Your task to perform on an android device: turn on wifi Image 0: 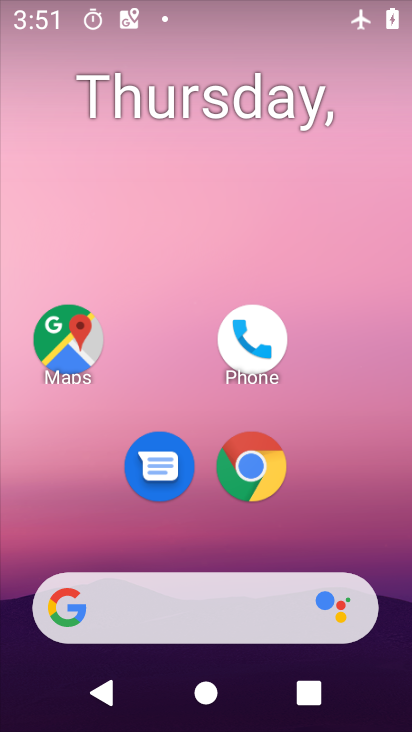
Step 0: drag from (200, 560) to (225, 106)
Your task to perform on an android device: turn on wifi Image 1: 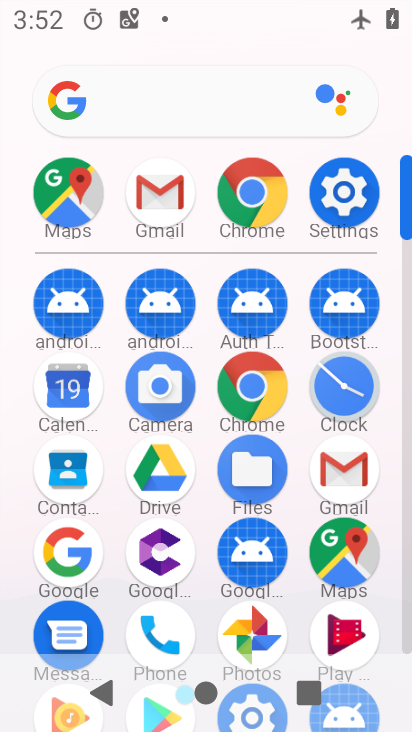
Step 1: click (353, 202)
Your task to perform on an android device: turn on wifi Image 2: 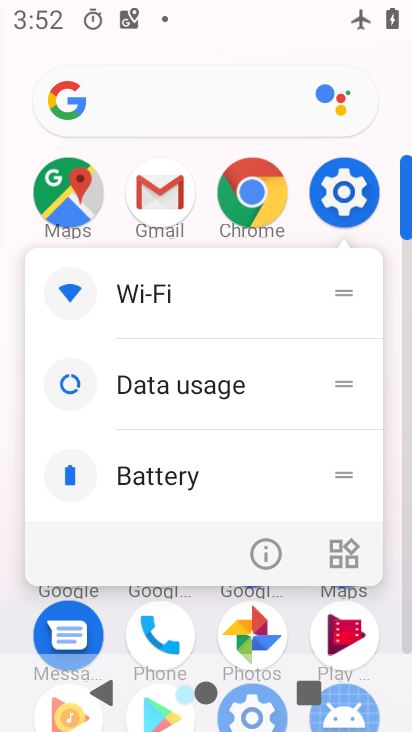
Step 2: click (186, 287)
Your task to perform on an android device: turn on wifi Image 3: 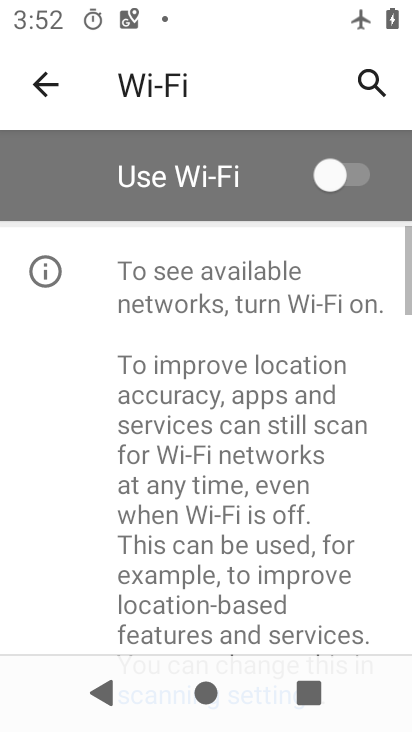
Step 3: click (338, 174)
Your task to perform on an android device: turn on wifi Image 4: 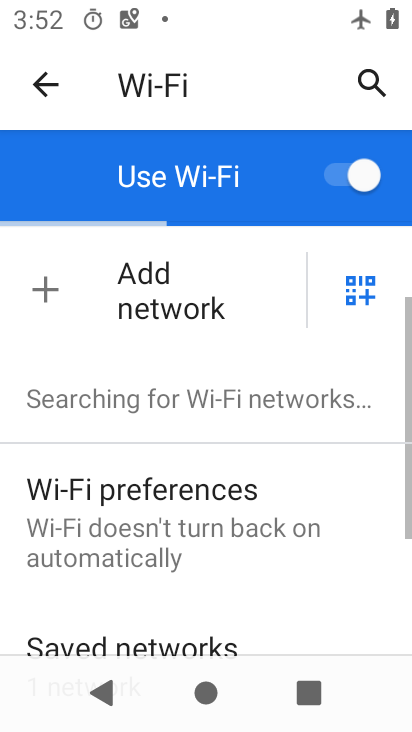
Step 4: task complete